Your task to perform on an android device: change alarm snooze length Image 0: 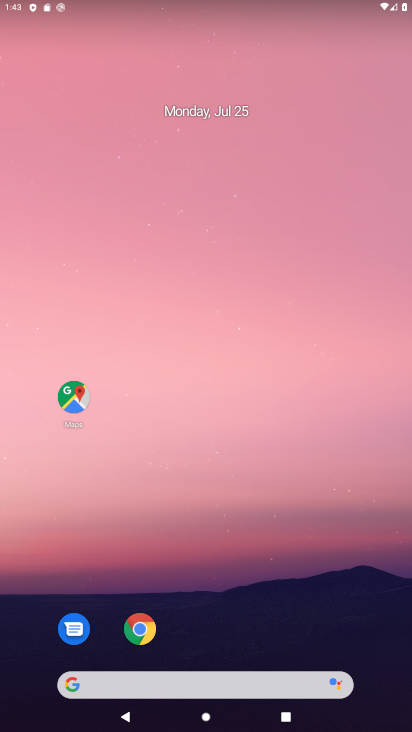
Step 0: drag from (244, 484) to (160, 33)
Your task to perform on an android device: change alarm snooze length Image 1: 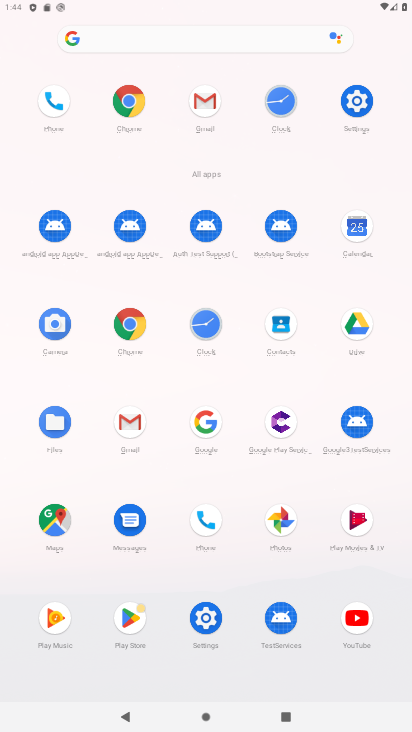
Step 1: click (208, 335)
Your task to perform on an android device: change alarm snooze length Image 2: 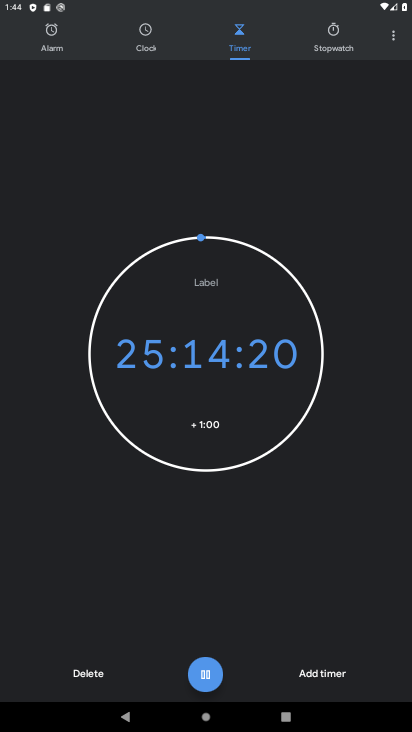
Step 2: click (396, 48)
Your task to perform on an android device: change alarm snooze length Image 3: 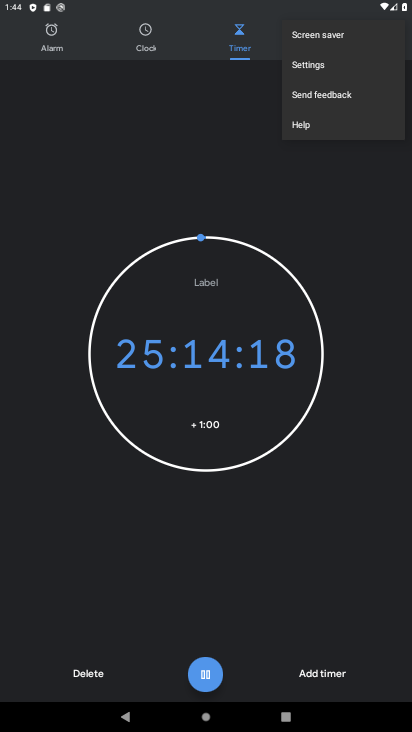
Step 3: click (321, 70)
Your task to perform on an android device: change alarm snooze length Image 4: 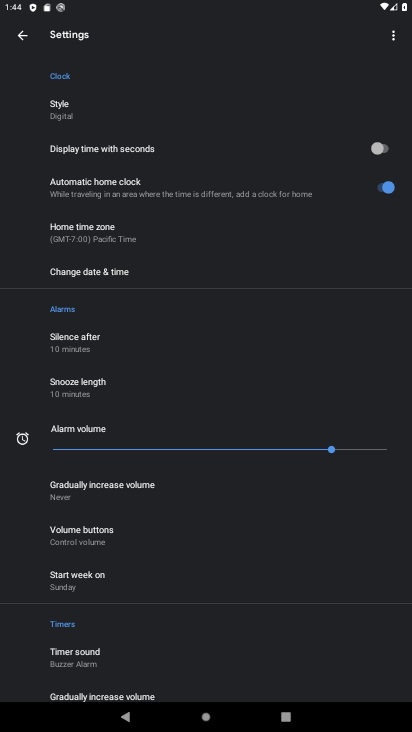
Step 4: drag from (180, 289) to (213, 662)
Your task to perform on an android device: change alarm snooze length Image 5: 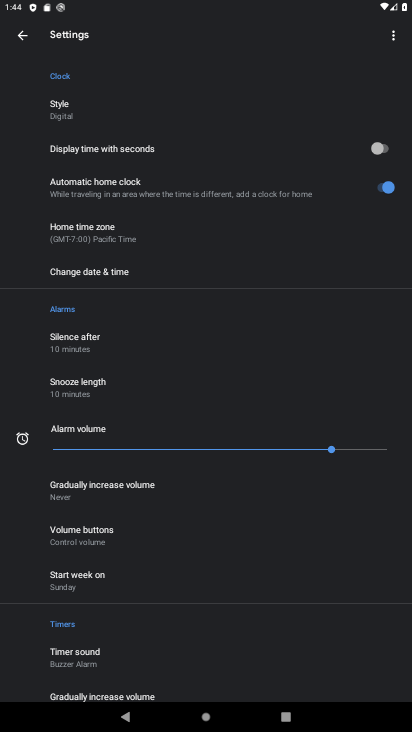
Step 5: click (77, 389)
Your task to perform on an android device: change alarm snooze length Image 6: 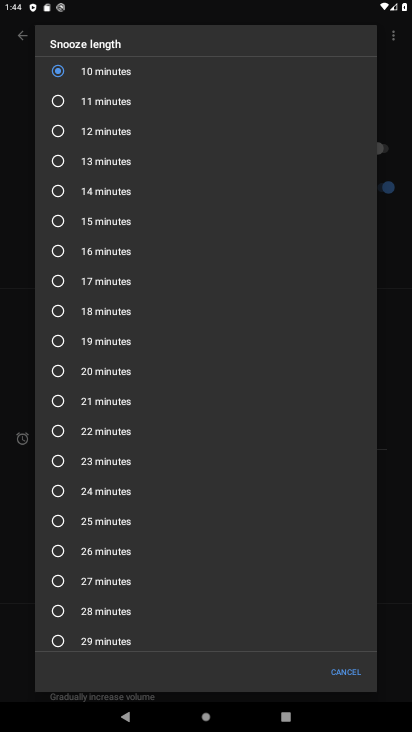
Step 6: click (56, 346)
Your task to perform on an android device: change alarm snooze length Image 7: 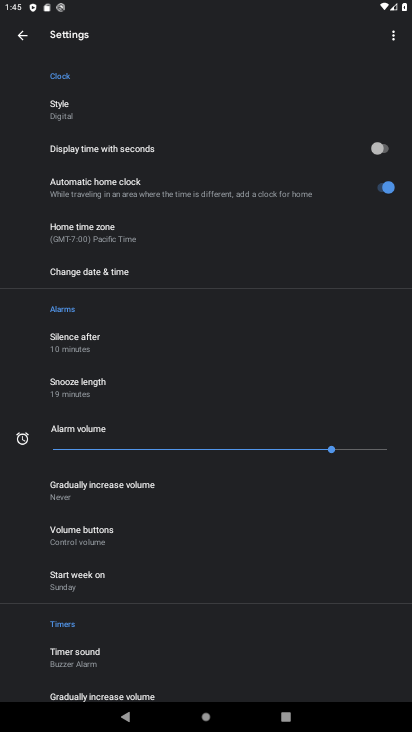
Step 7: task complete